Your task to perform on an android device: Go to Maps Image 0: 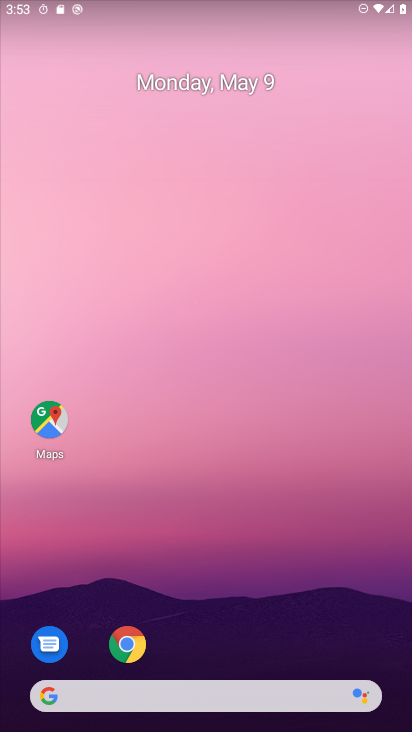
Step 0: drag from (237, 603) to (342, 1)
Your task to perform on an android device: Go to Maps Image 1: 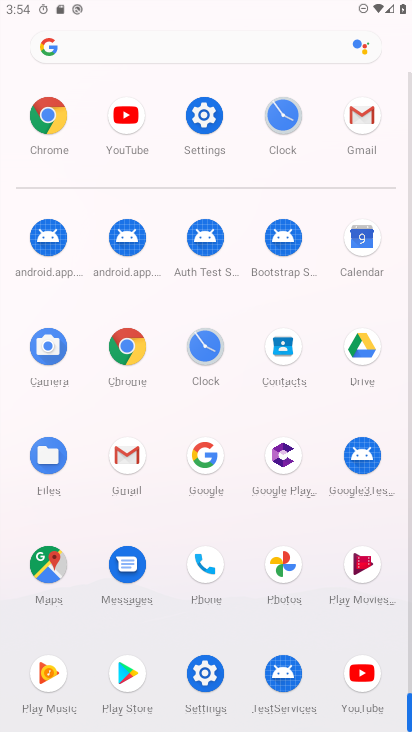
Step 1: click (29, 562)
Your task to perform on an android device: Go to Maps Image 2: 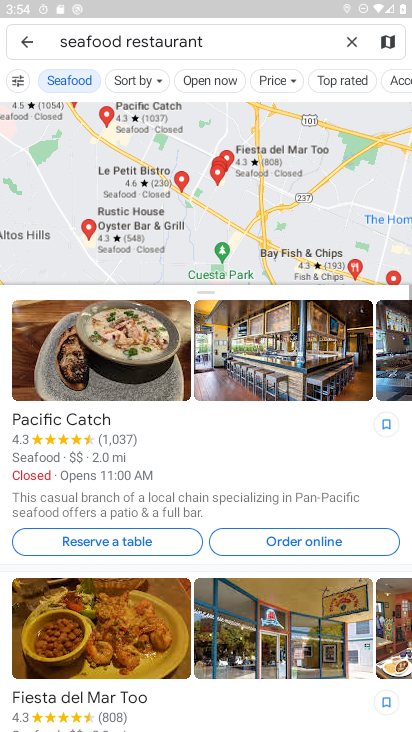
Step 2: task complete